Your task to perform on an android device: change notification settings in the gmail app Image 0: 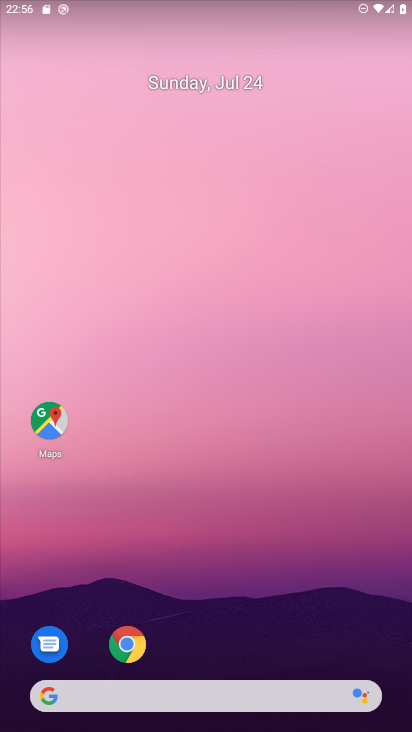
Step 0: drag from (382, 634) to (304, 81)
Your task to perform on an android device: change notification settings in the gmail app Image 1: 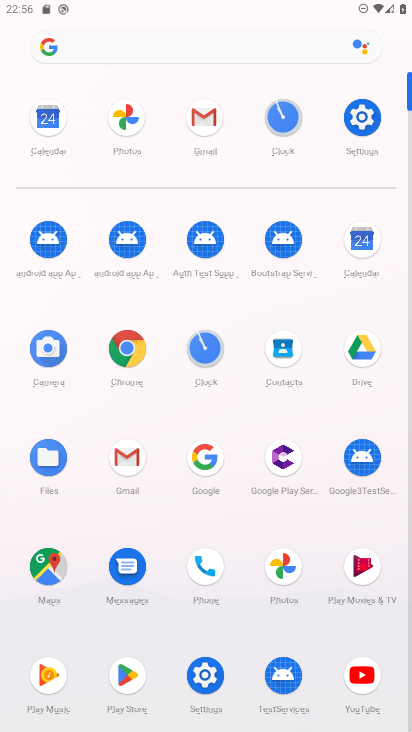
Step 1: click (125, 457)
Your task to perform on an android device: change notification settings in the gmail app Image 2: 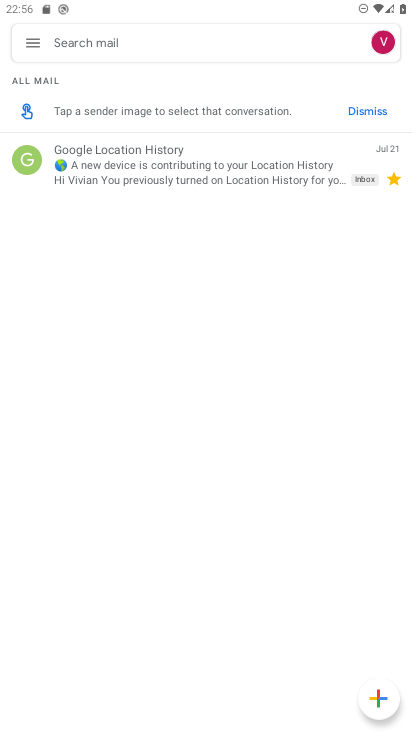
Step 2: click (32, 41)
Your task to perform on an android device: change notification settings in the gmail app Image 3: 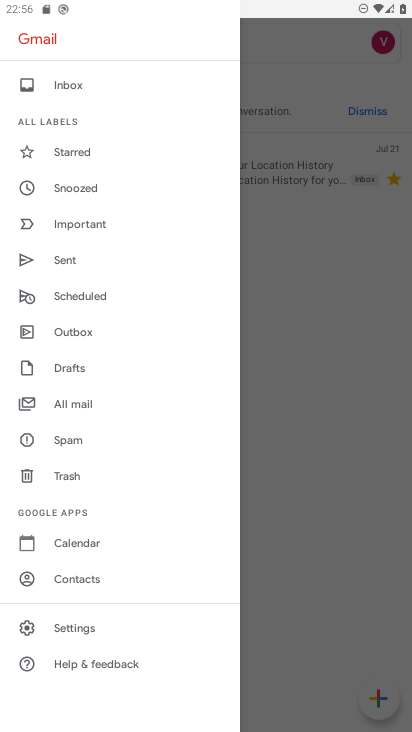
Step 3: click (77, 620)
Your task to perform on an android device: change notification settings in the gmail app Image 4: 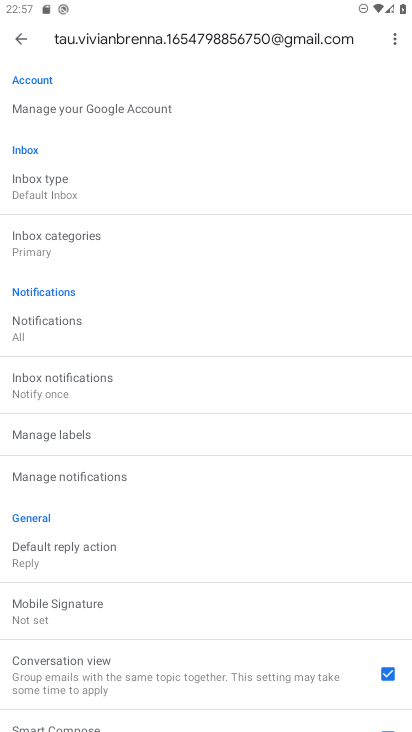
Step 4: click (62, 471)
Your task to perform on an android device: change notification settings in the gmail app Image 5: 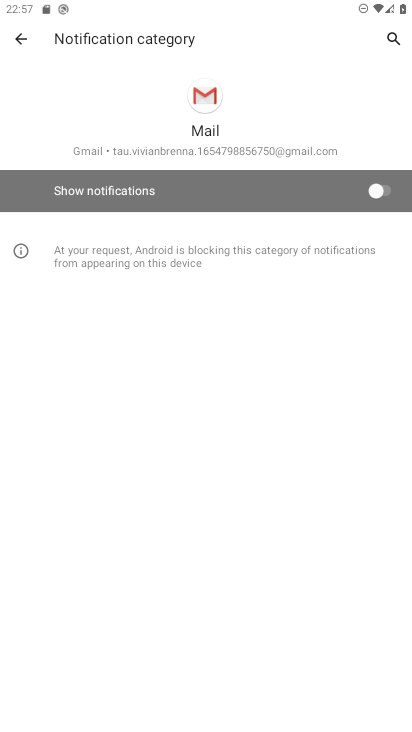
Step 5: click (384, 184)
Your task to perform on an android device: change notification settings in the gmail app Image 6: 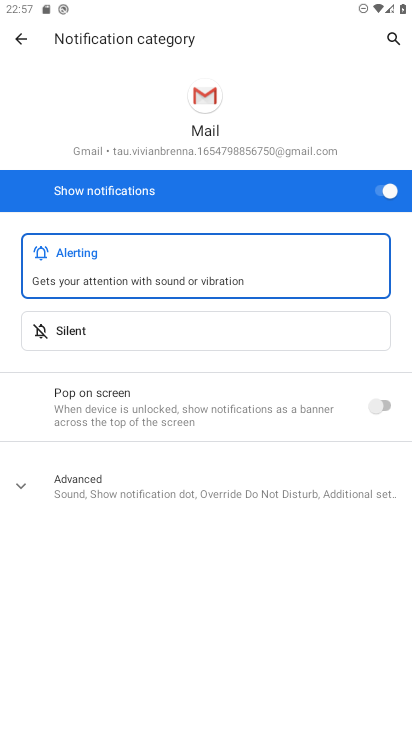
Step 6: task complete